Your task to perform on an android device: clear history in the chrome app Image 0: 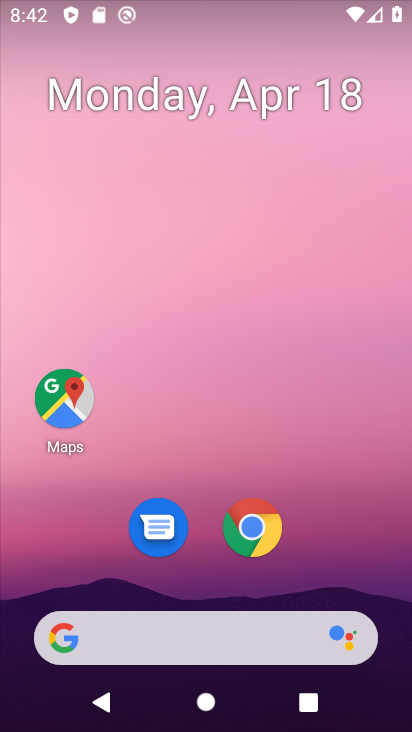
Step 0: drag from (396, 629) to (242, 34)
Your task to perform on an android device: clear history in the chrome app Image 1: 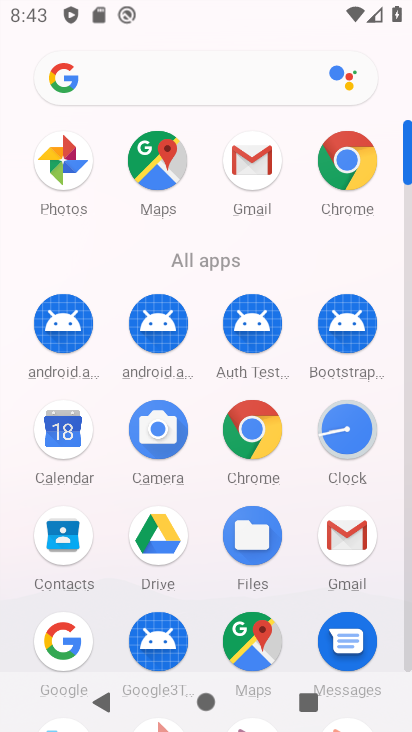
Step 1: click (345, 158)
Your task to perform on an android device: clear history in the chrome app Image 2: 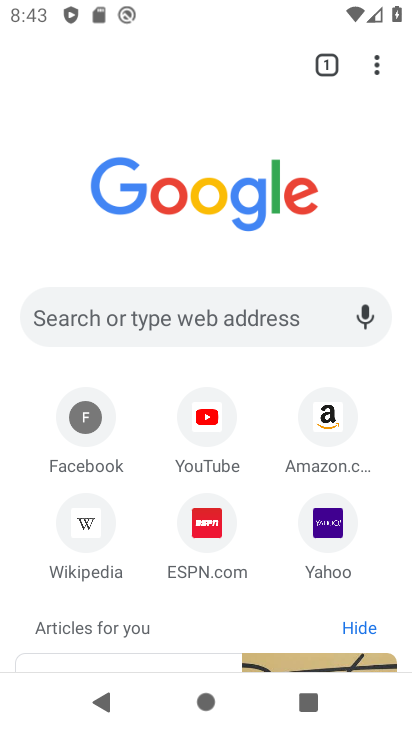
Step 2: drag from (374, 66) to (175, 369)
Your task to perform on an android device: clear history in the chrome app Image 3: 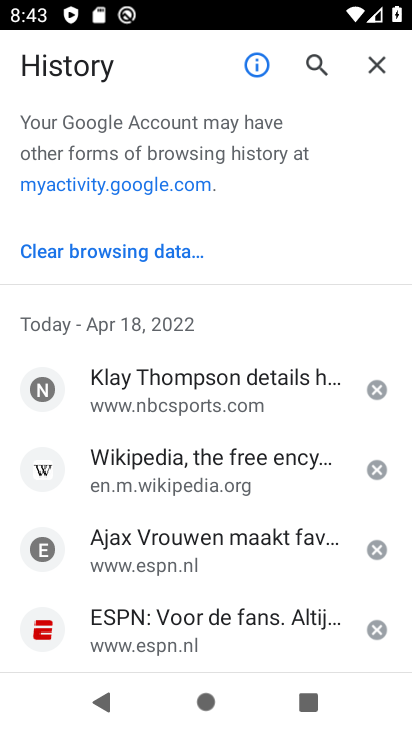
Step 3: click (107, 250)
Your task to perform on an android device: clear history in the chrome app Image 4: 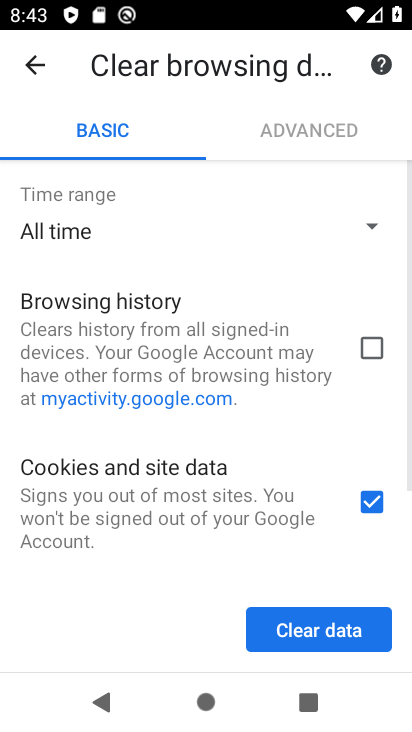
Step 4: click (375, 341)
Your task to perform on an android device: clear history in the chrome app Image 5: 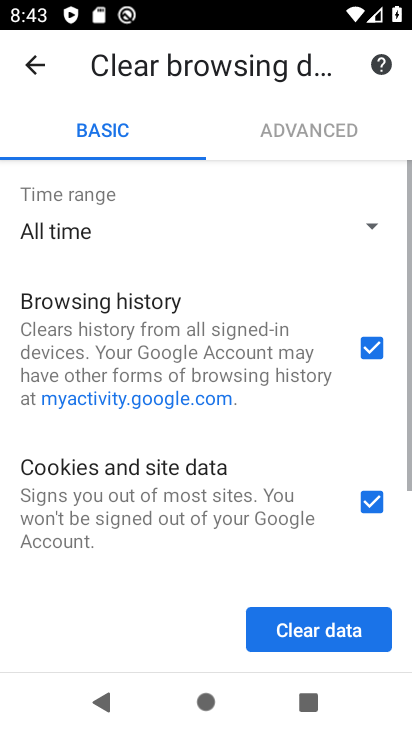
Step 5: click (370, 494)
Your task to perform on an android device: clear history in the chrome app Image 6: 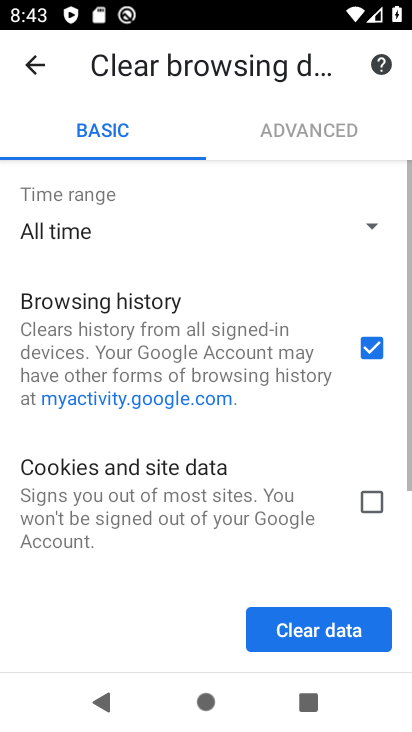
Step 6: click (328, 629)
Your task to perform on an android device: clear history in the chrome app Image 7: 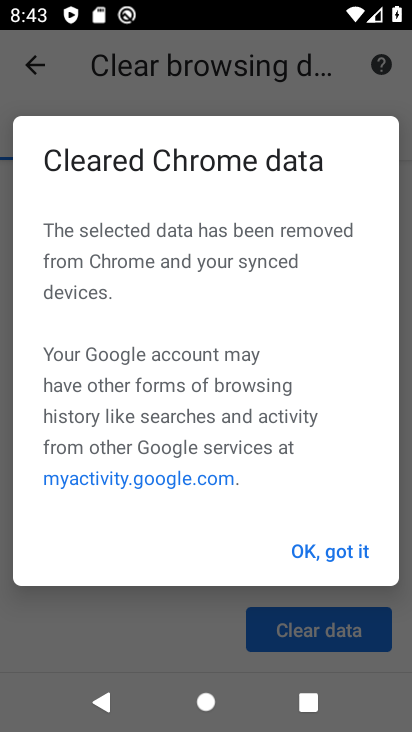
Step 7: click (341, 552)
Your task to perform on an android device: clear history in the chrome app Image 8: 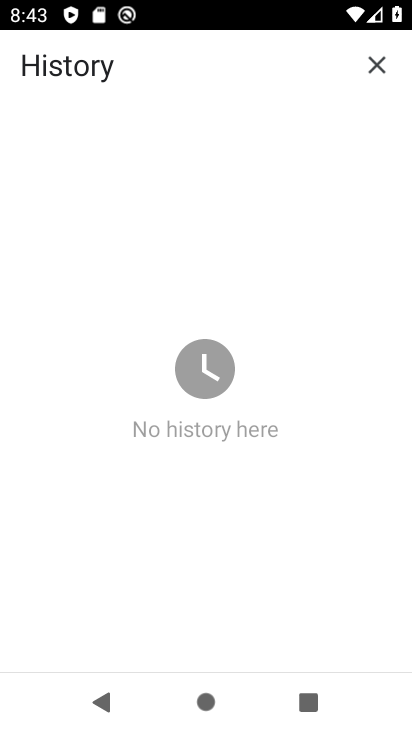
Step 8: task complete